Your task to perform on an android device: change the clock display to digital Image 0: 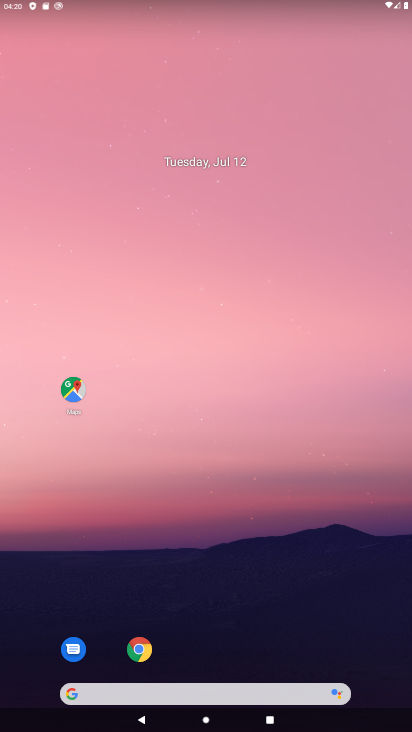
Step 0: drag from (205, 690) to (271, 55)
Your task to perform on an android device: change the clock display to digital Image 1: 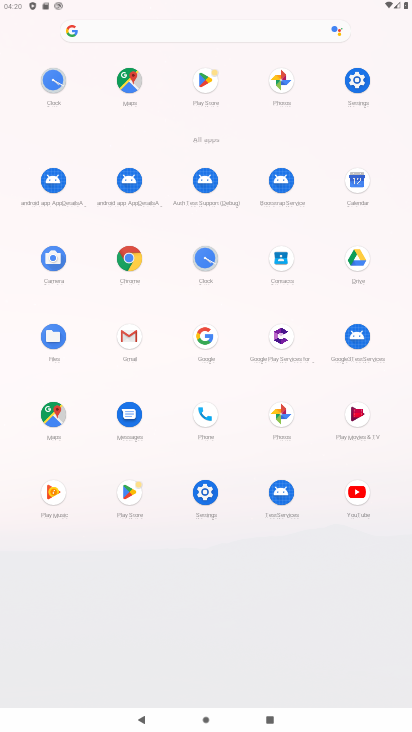
Step 1: click (205, 258)
Your task to perform on an android device: change the clock display to digital Image 2: 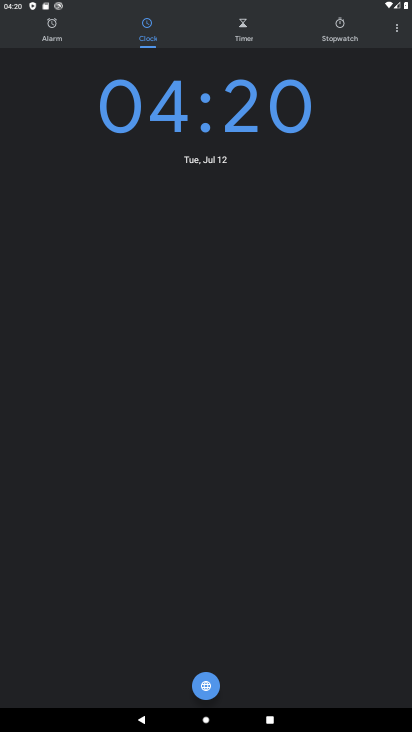
Step 2: click (400, 31)
Your task to perform on an android device: change the clock display to digital Image 3: 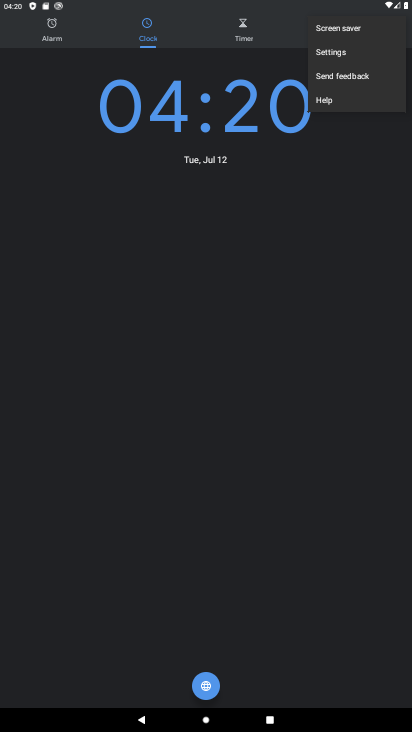
Step 3: click (359, 50)
Your task to perform on an android device: change the clock display to digital Image 4: 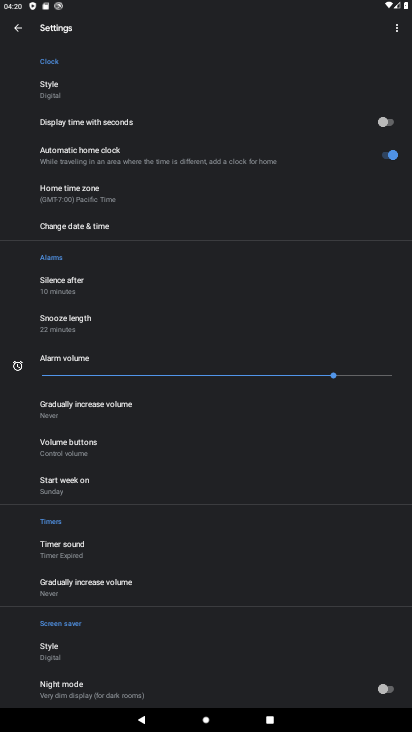
Step 4: click (56, 93)
Your task to perform on an android device: change the clock display to digital Image 5: 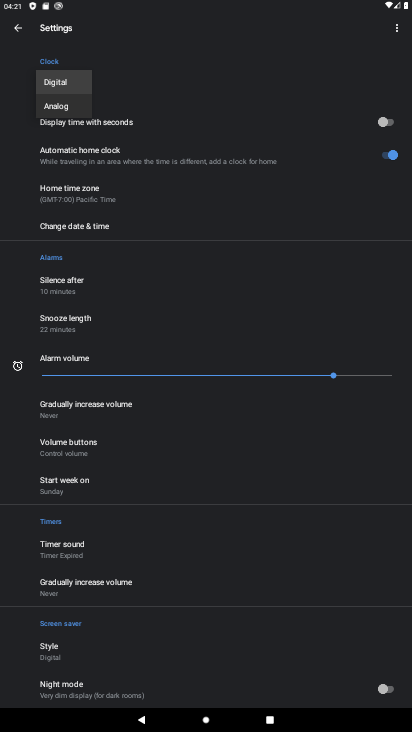
Step 5: click (55, 82)
Your task to perform on an android device: change the clock display to digital Image 6: 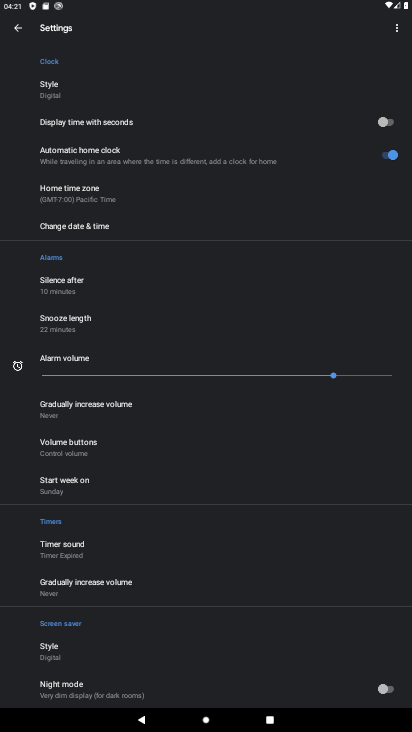
Step 6: task complete